Your task to perform on an android device: turn on sleep mode Image 0: 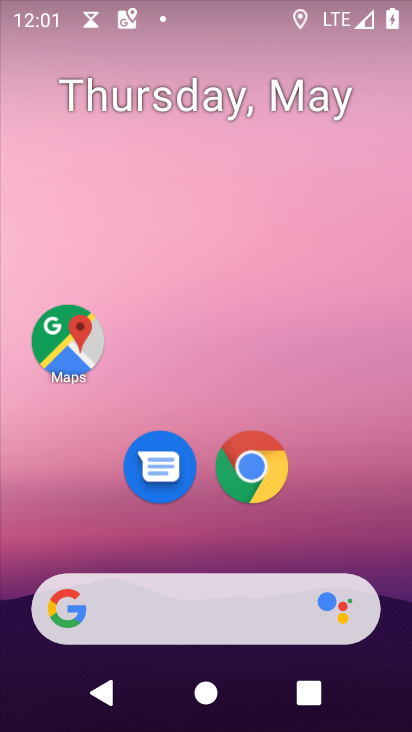
Step 0: drag from (171, 638) to (347, 74)
Your task to perform on an android device: turn on sleep mode Image 1: 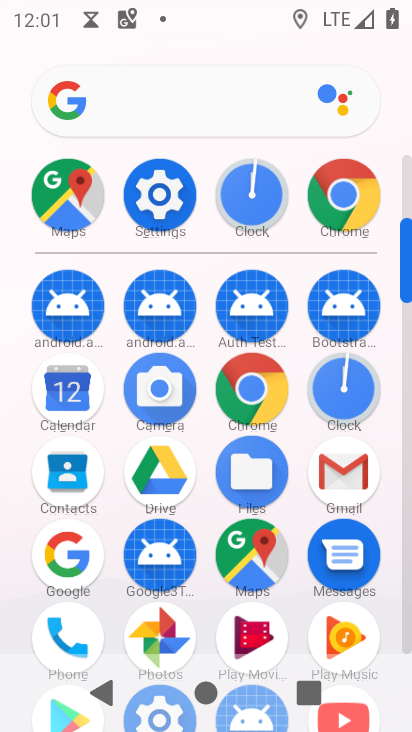
Step 1: click (162, 196)
Your task to perform on an android device: turn on sleep mode Image 2: 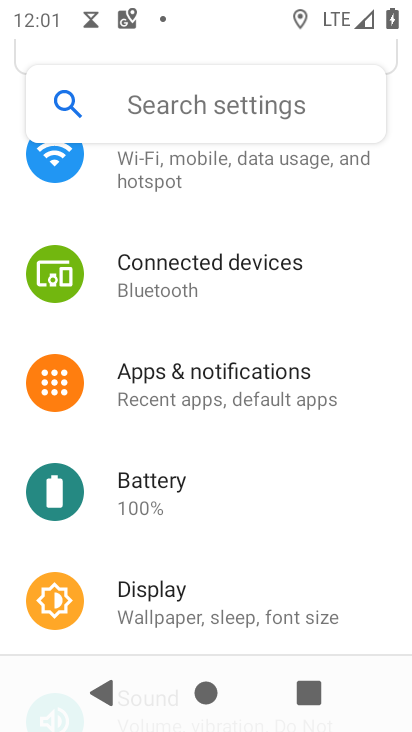
Step 2: drag from (243, 215) to (321, 141)
Your task to perform on an android device: turn on sleep mode Image 3: 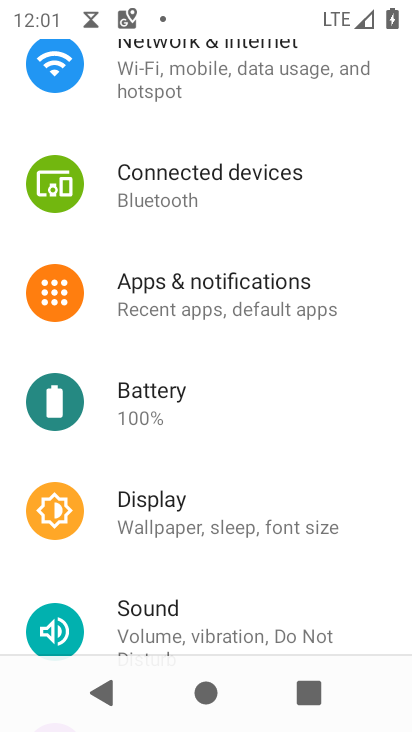
Step 3: click (255, 527)
Your task to perform on an android device: turn on sleep mode Image 4: 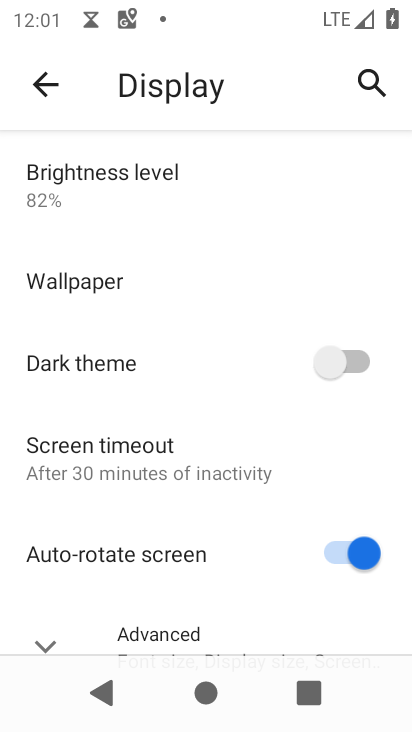
Step 4: task complete